Your task to perform on an android device: What's the weather going to be tomorrow? Image 0: 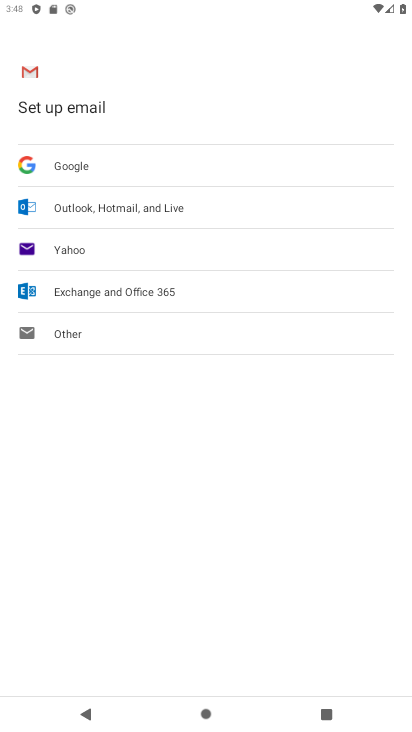
Step 0: press home button
Your task to perform on an android device: What's the weather going to be tomorrow? Image 1: 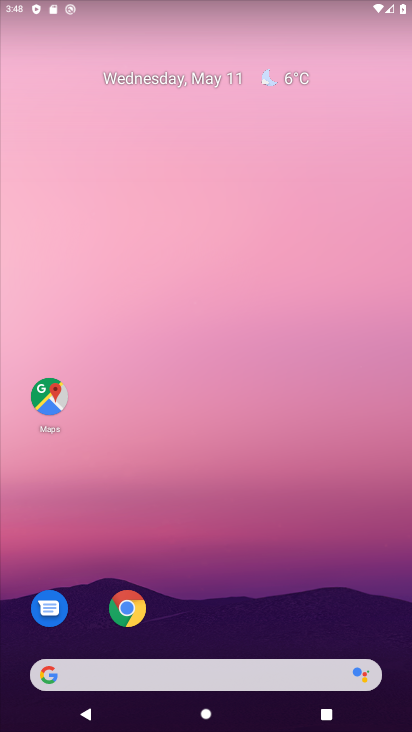
Step 1: click (267, 81)
Your task to perform on an android device: What's the weather going to be tomorrow? Image 2: 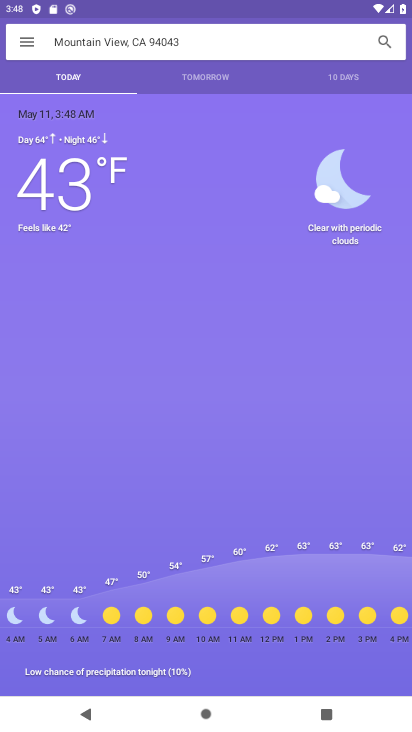
Step 2: click (218, 77)
Your task to perform on an android device: What's the weather going to be tomorrow? Image 3: 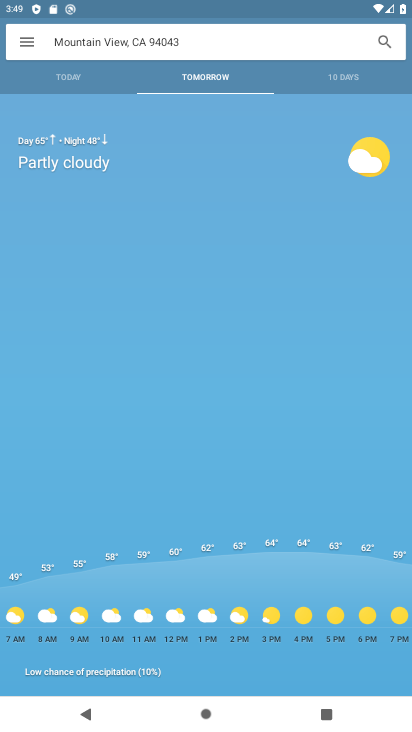
Step 3: task complete